Your task to perform on an android device: Is it going to rain today? Image 0: 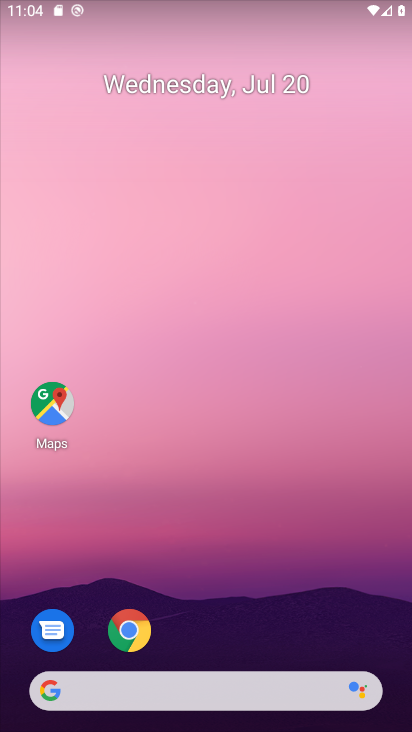
Step 0: click (171, 689)
Your task to perform on an android device: Is it going to rain today? Image 1: 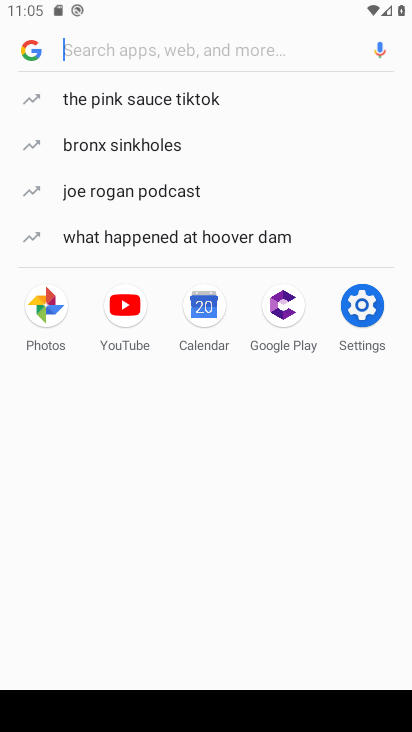
Step 1: type "Is it going to rain today?"
Your task to perform on an android device: Is it going to rain today? Image 2: 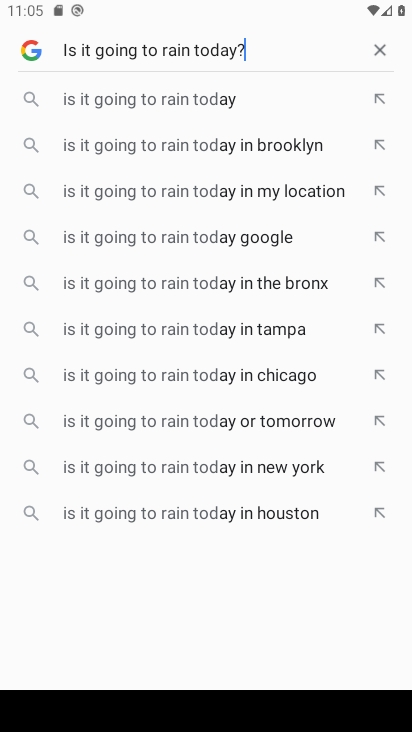
Step 2: press enter
Your task to perform on an android device: Is it going to rain today? Image 3: 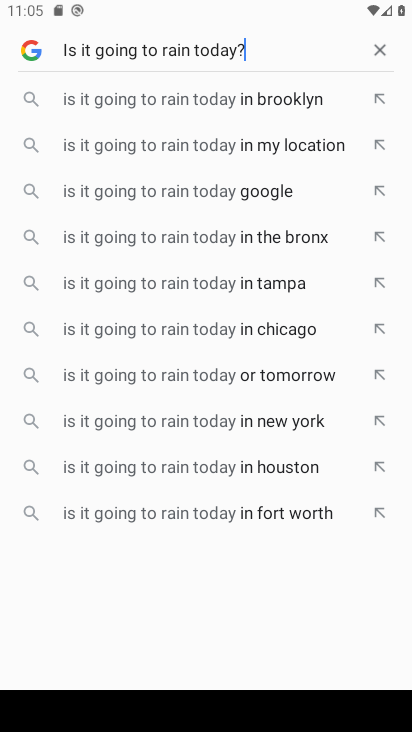
Step 3: type ""
Your task to perform on an android device: Is it going to rain today? Image 4: 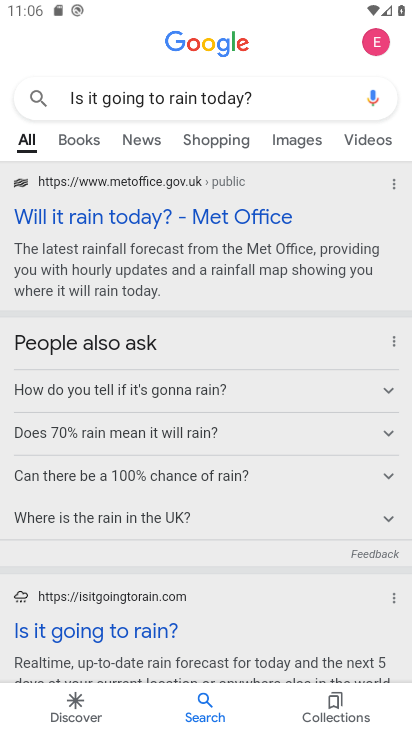
Step 4: press home button
Your task to perform on an android device: Is it going to rain today? Image 5: 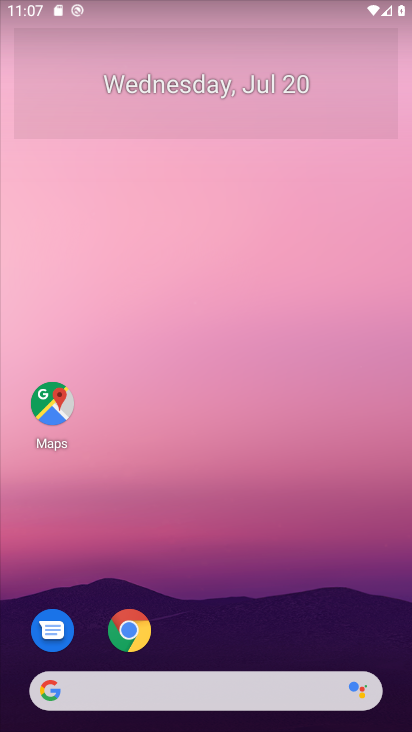
Step 5: click (209, 693)
Your task to perform on an android device: Is it going to rain today? Image 6: 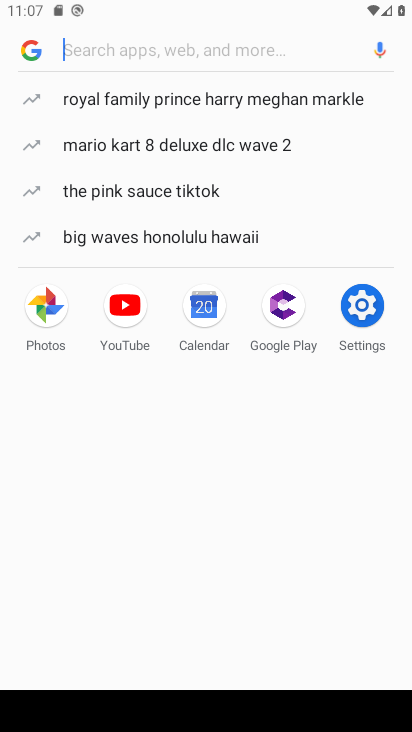
Step 6: type "Is it going to rain today?"
Your task to perform on an android device: Is it going to rain today? Image 7: 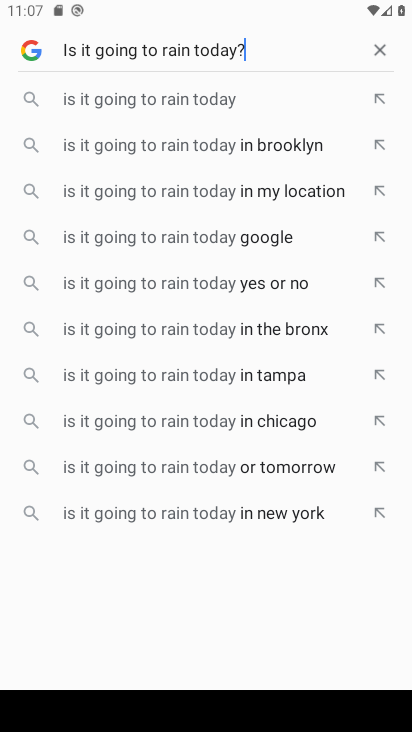
Step 7: press enter
Your task to perform on an android device: Is it going to rain today? Image 8: 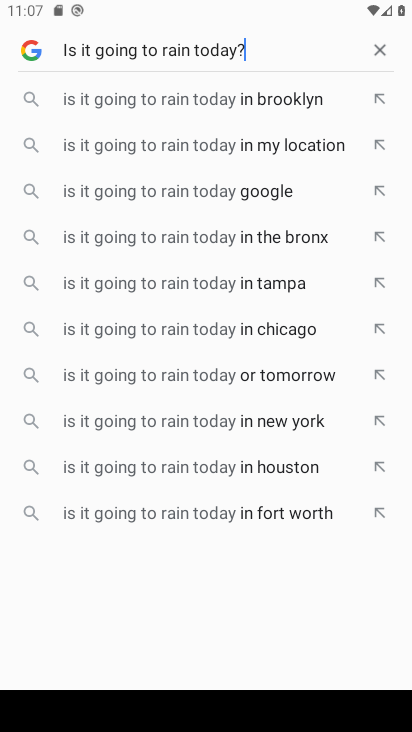
Step 8: type ""
Your task to perform on an android device: Is it going to rain today? Image 9: 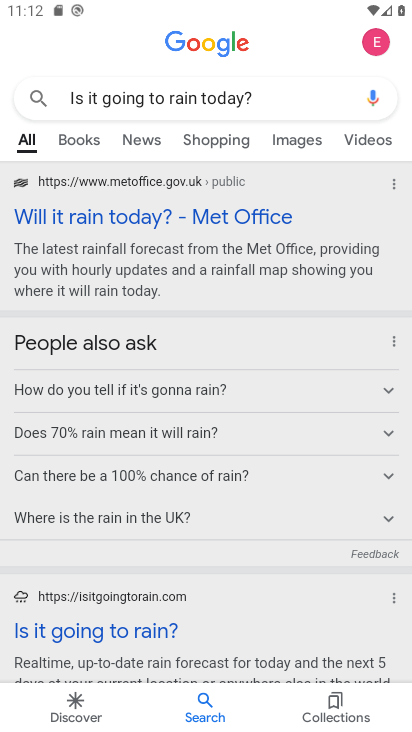
Step 9: press home button
Your task to perform on an android device: Is it going to rain today? Image 10: 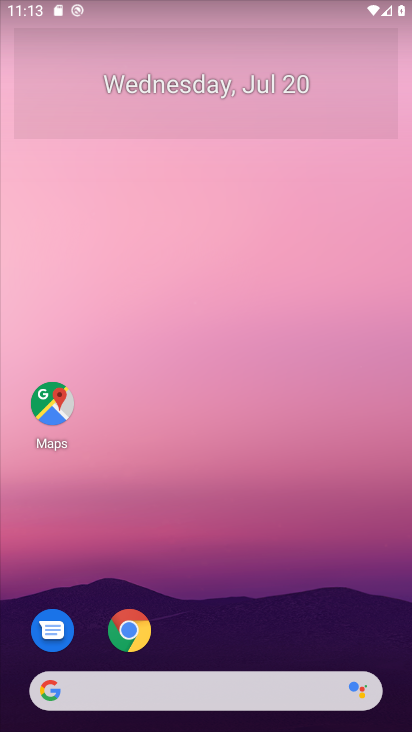
Step 10: click (228, 698)
Your task to perform on an android device: Is it going to rain today? Image 11: 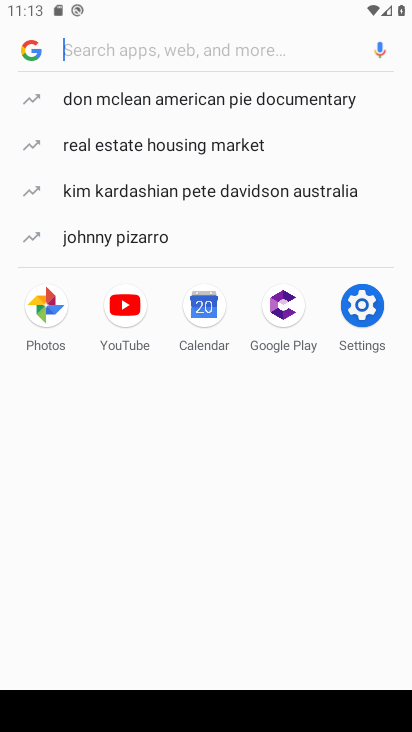
Step 11: type "Is it going to rain today?"
Your task to perform on an android device: Is it going to rain today? Image 12: 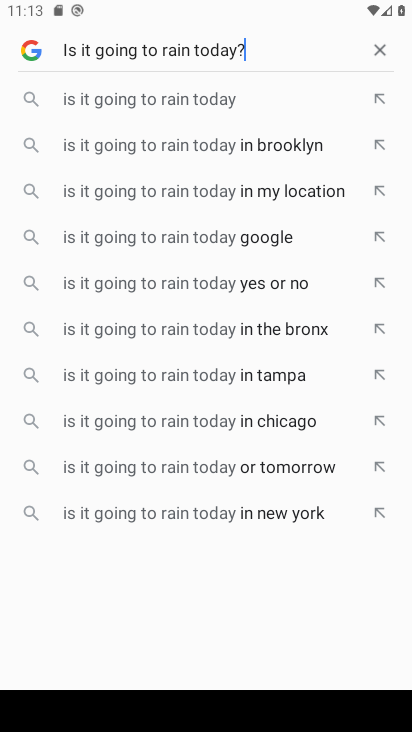
Step 12: press enter
Your task to perform on an android device: Is it going to rain today? Image 13: 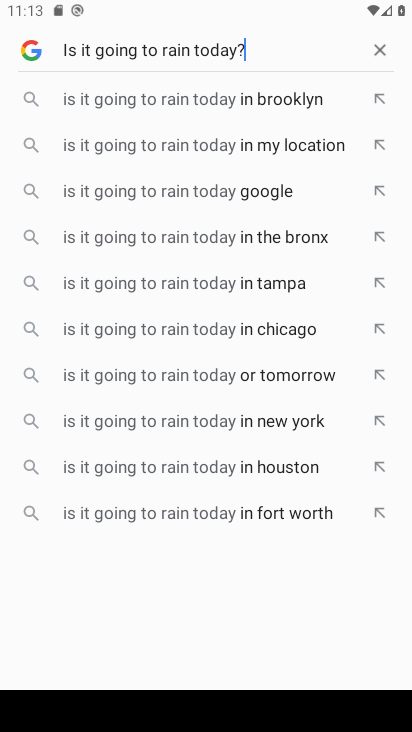
Step 13: type ""
Your task to perform on an android device: Is it going to rain today? Image 14: 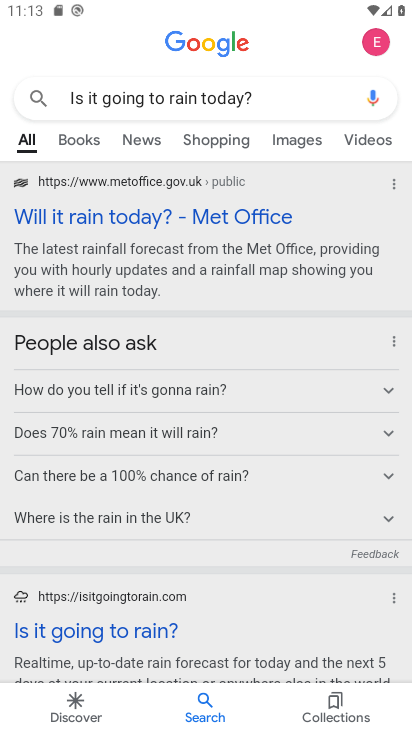
Step 14: task complete